Your task to perform on an android device: toggle airplane mode Image 0: 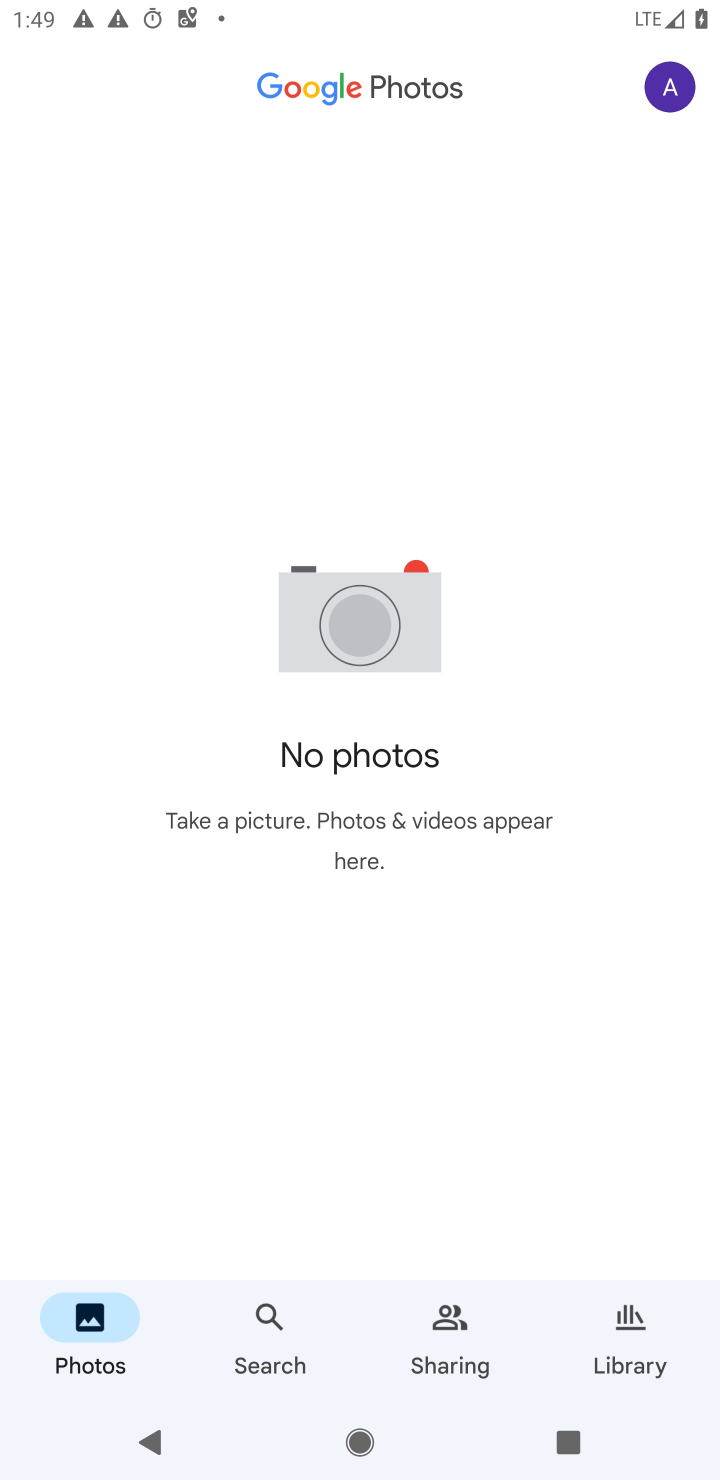
Step 0: press home button
Your task to perform on an android device: toggle airplane mode Image 1: 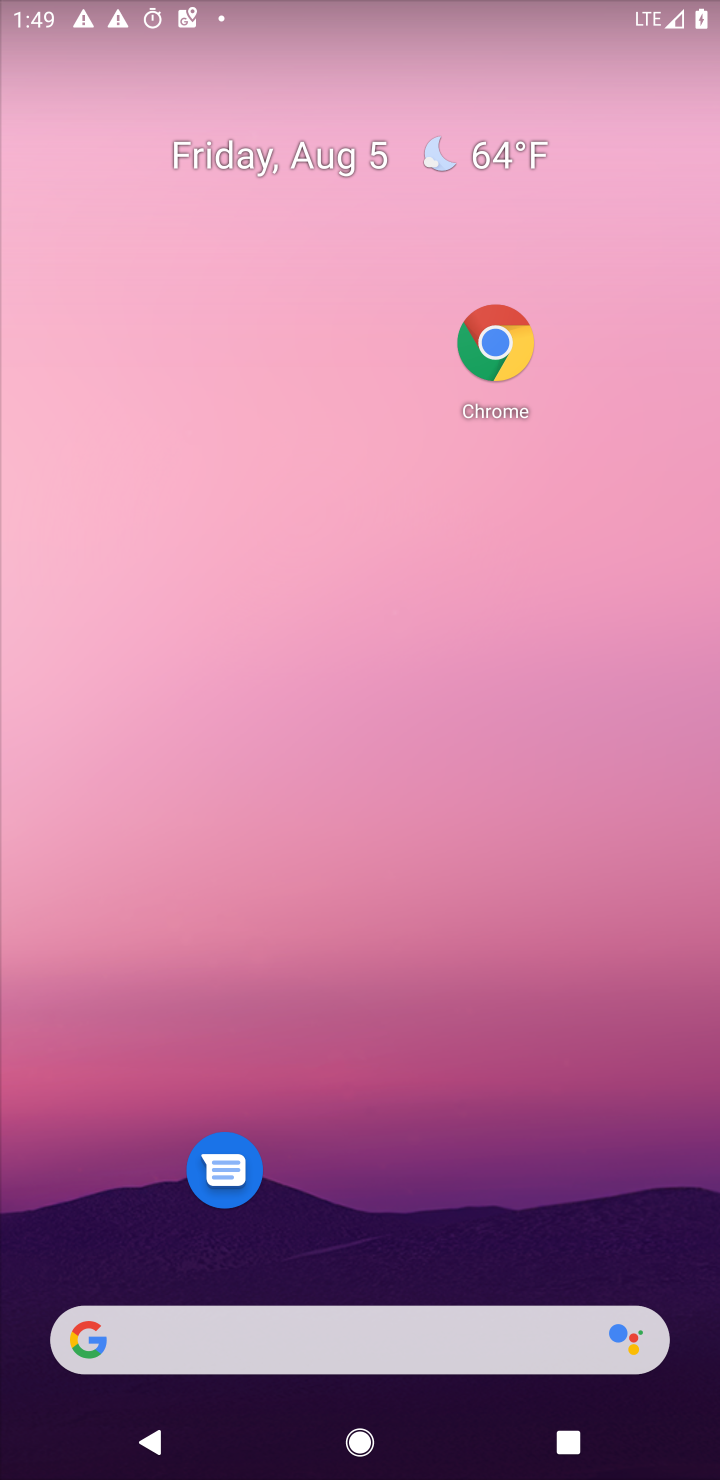
Step 1: drag from (416, 1052) to (588, 109)
Your task to perform on an android device: toggle airplane mode Image 2: 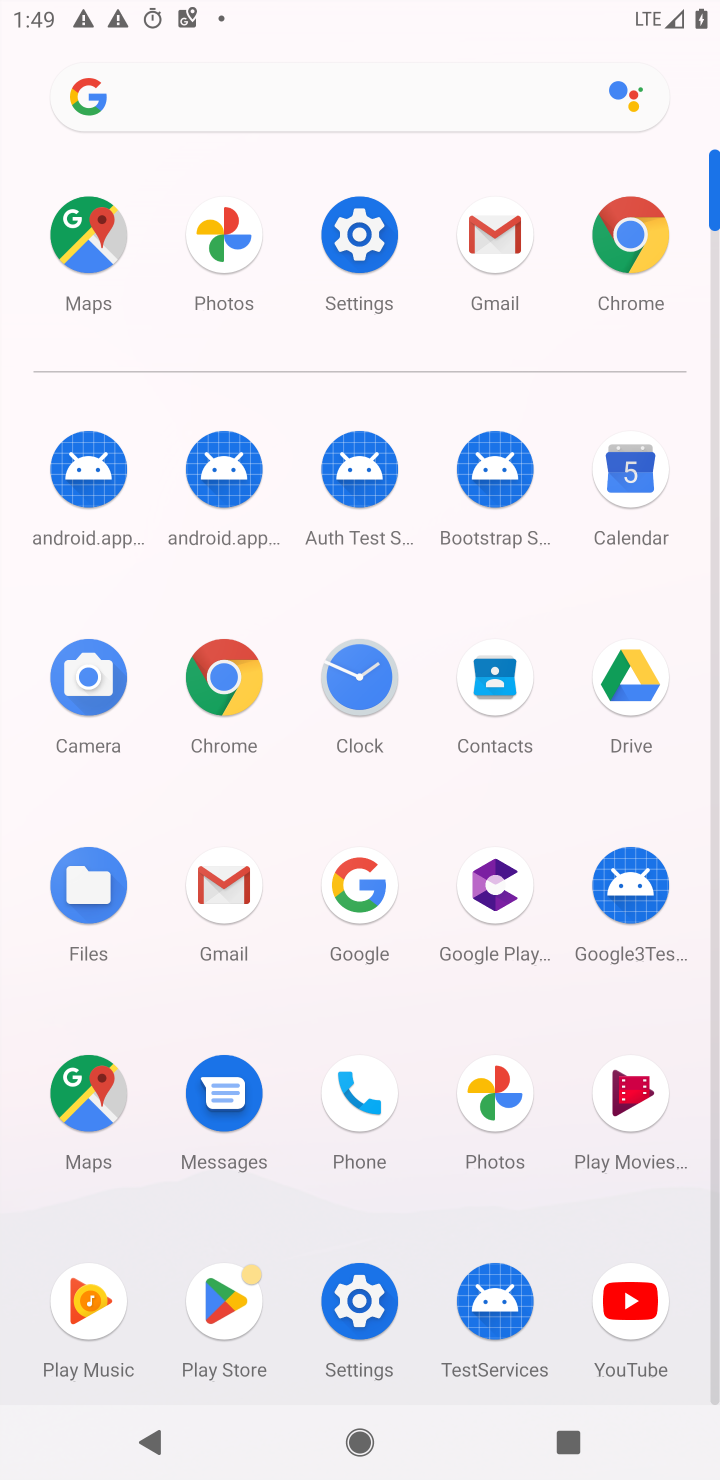
Step 2: click (379, 1310)
Your task to perform on an android device: toggle airplane mode Image 3: 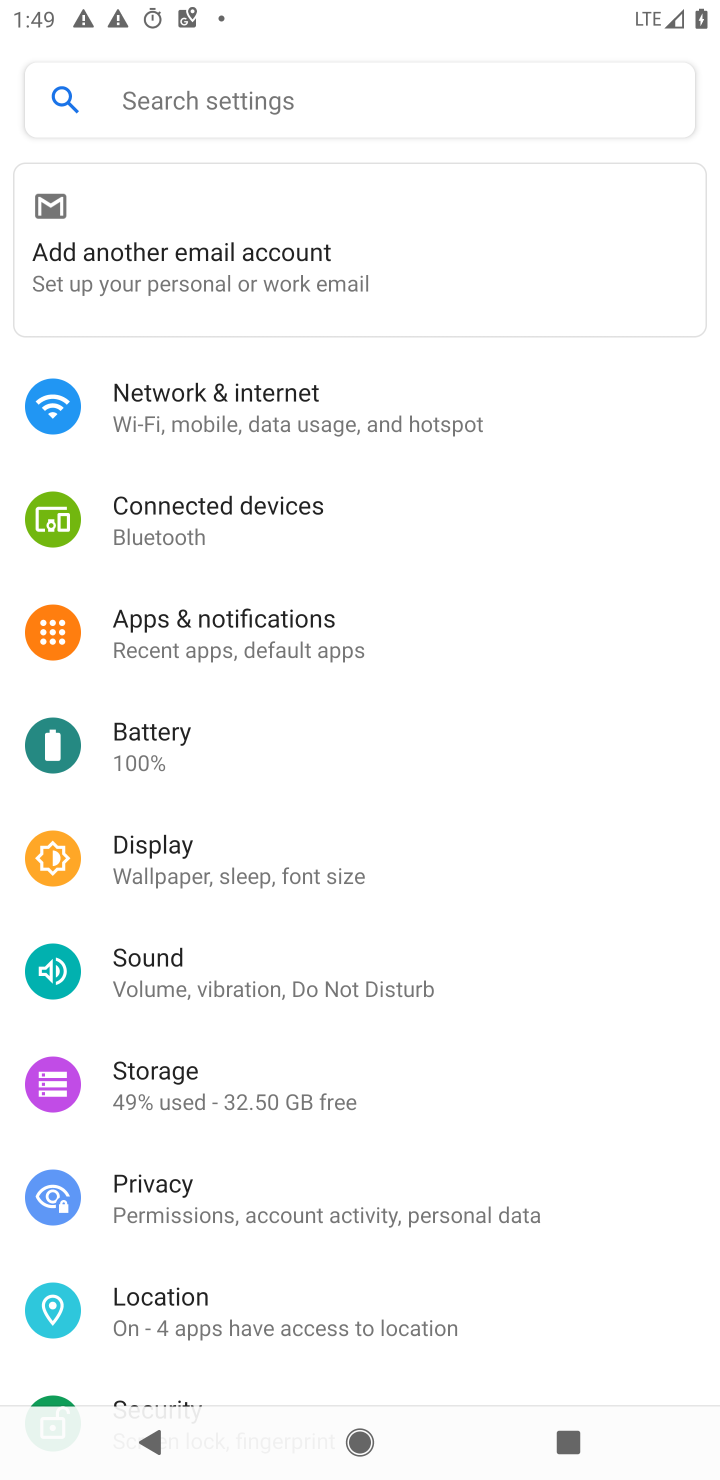
Step 3: click (327, 415)
Your task to perform on an android device: toggle airplane mode Image 4: 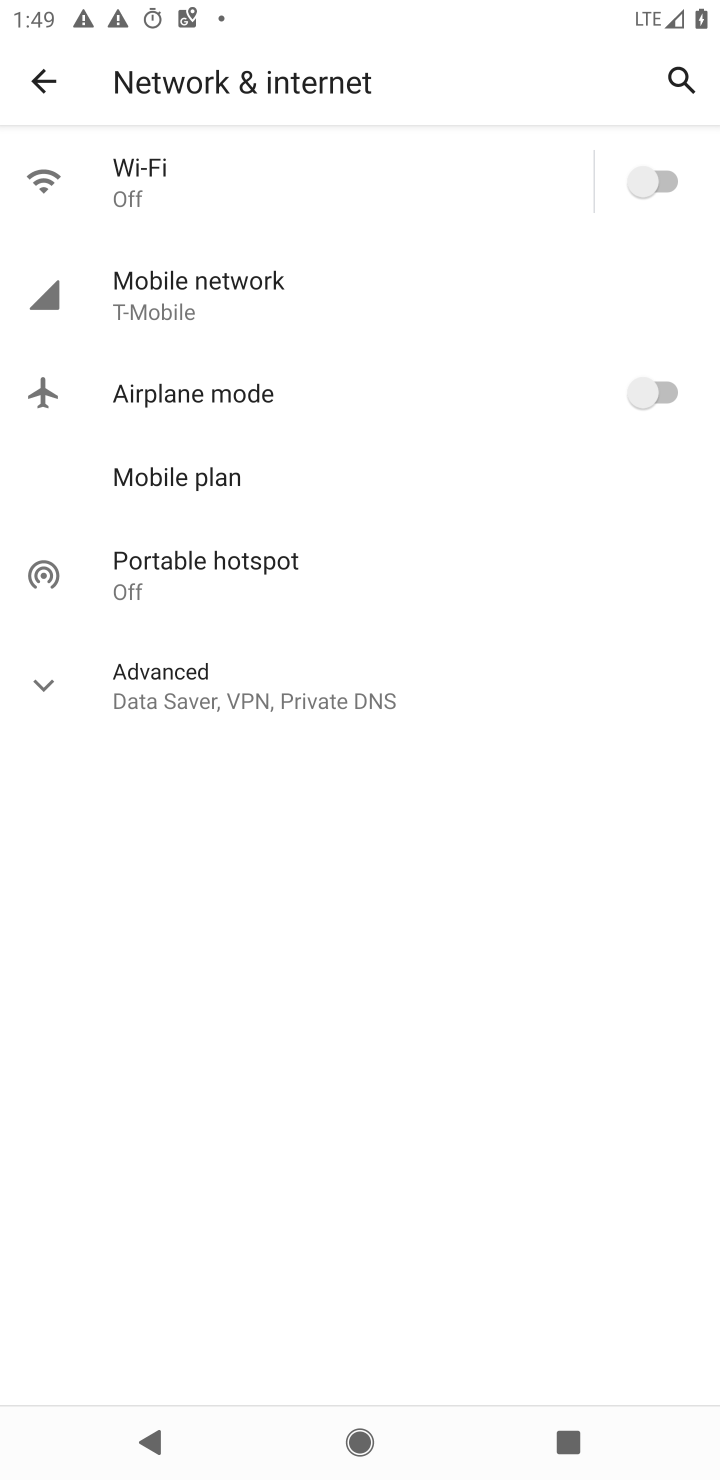
Step 4: click (638, 385)
Your task to perform on an android device: toggle airplane mode Image 5: 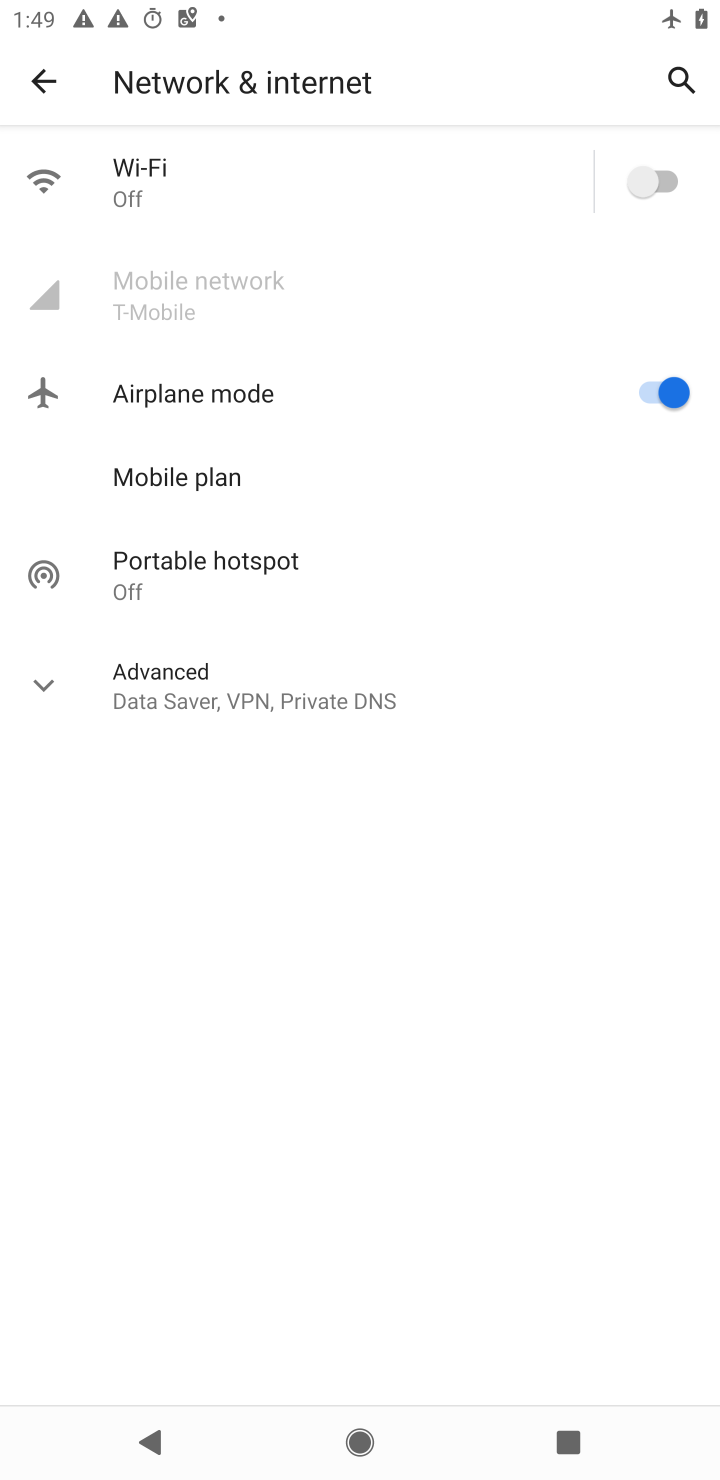
Step 5: task complete